Your task to perform on an android device: Add "usb-c" to the cart on target Image 0: 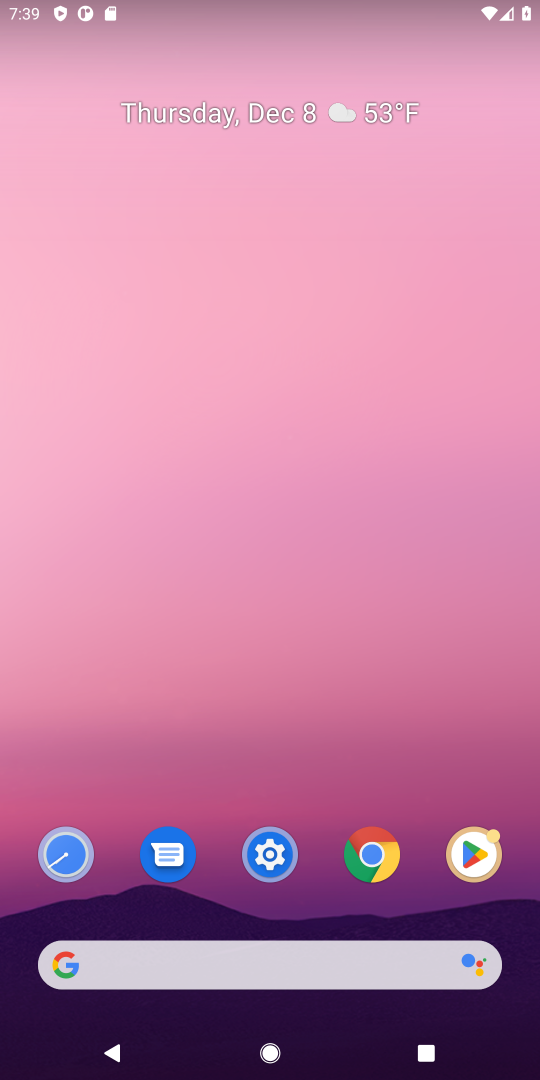
Step 0: click (115, 963)
Your task to perform on an android device: Add "usb-c" to the cart on target Image 1: 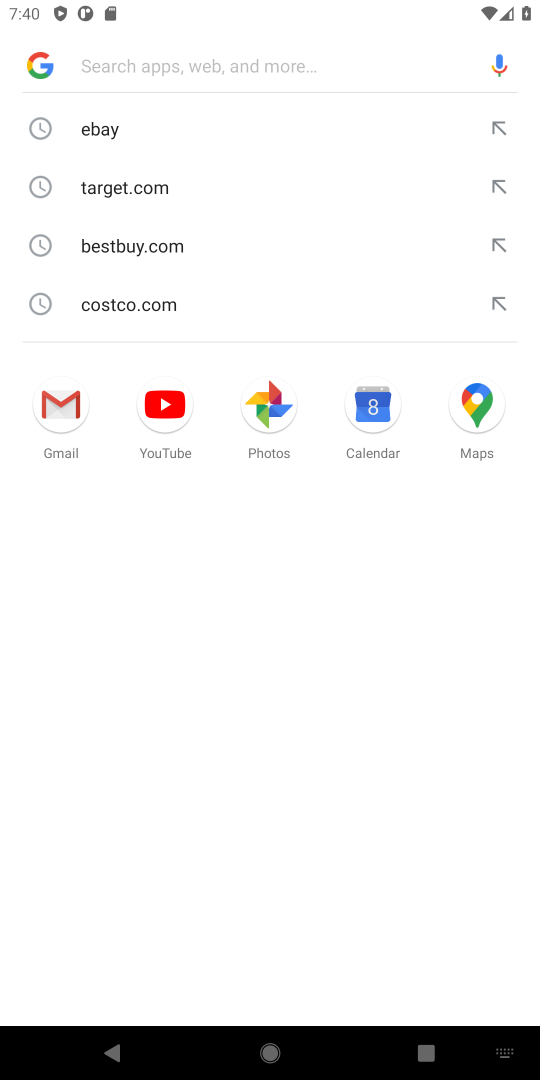
Step 1: type "target"
Your task to perform on an android device: Add "usb-c" to the cart on target Image 2: 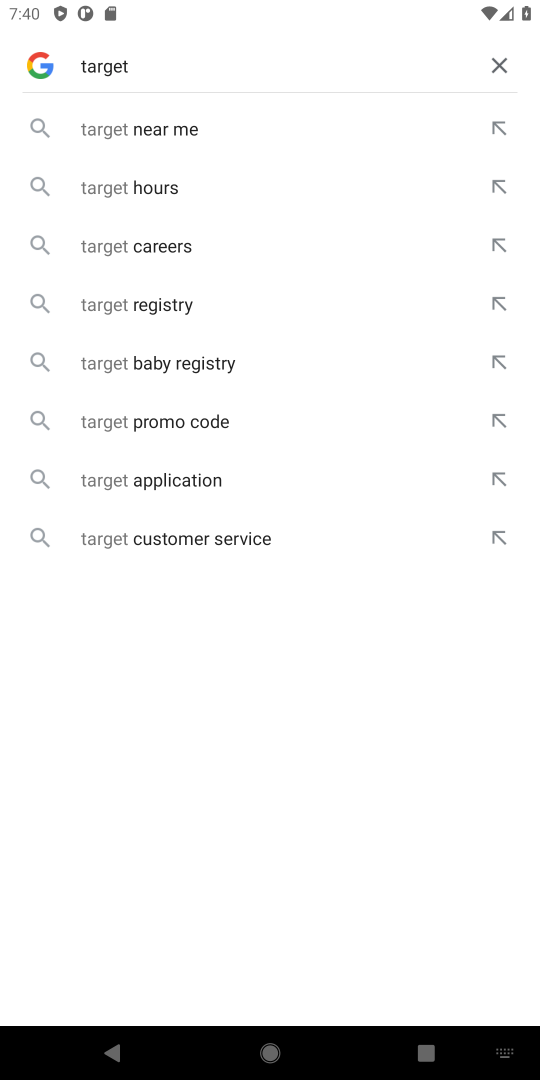
Step 2: press enter
Your task to perform on an android device: Add "usb-c" to the cart on target Image 3: 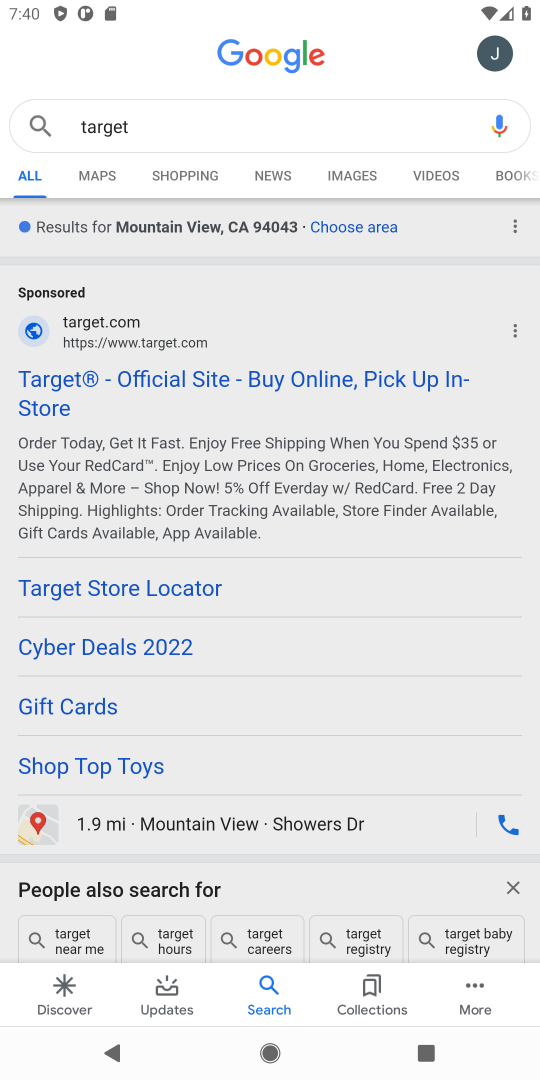
Step 3: click (168, 382)
Your task to perform on an android device: Add "usb-c" to the cart on target Image 4: 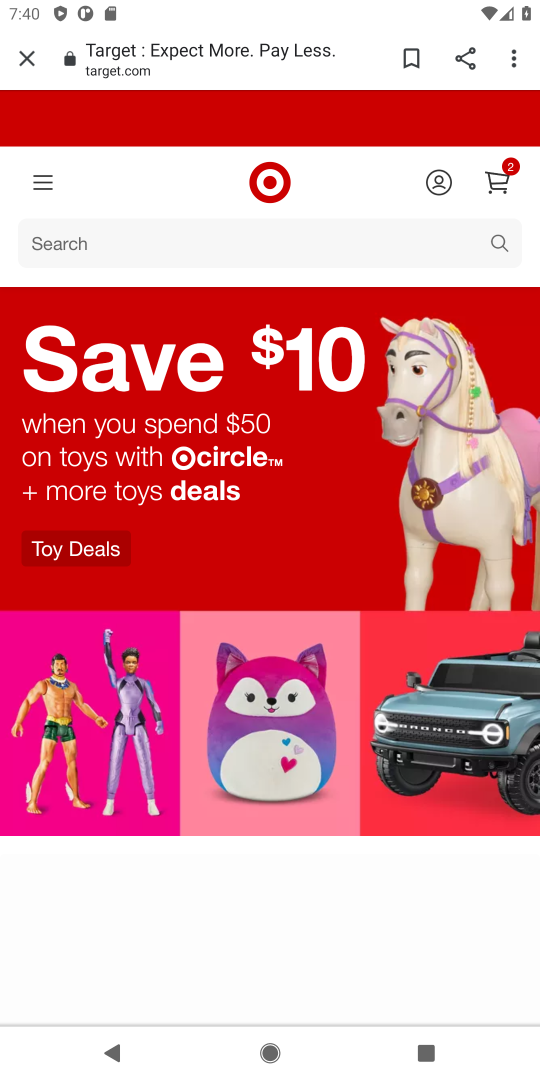
Step 4: click (45, 241)
Your task to perform on an android device: Add "usb-c" to the cart on target Image 5: 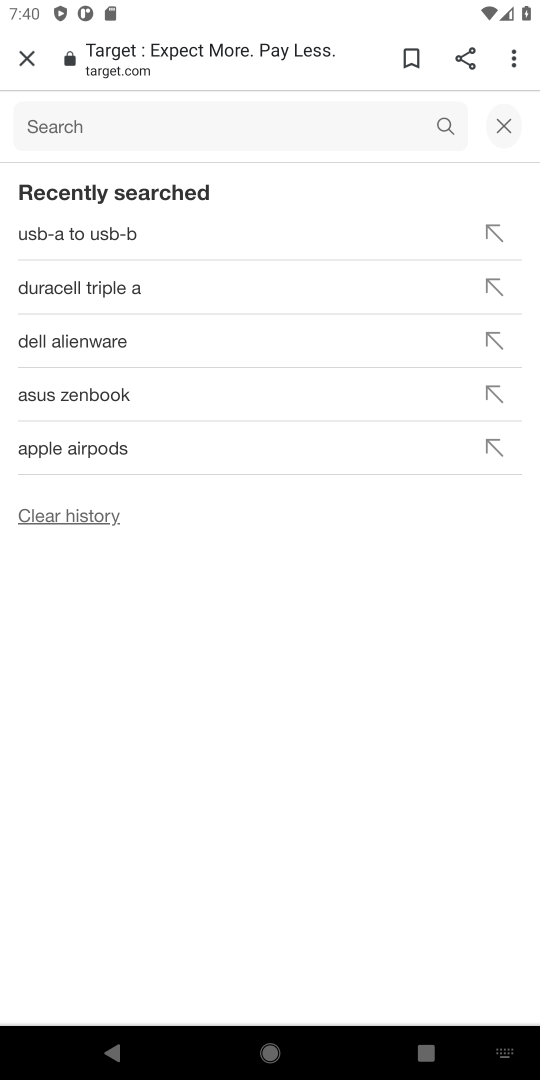
Step 5: type "usb-c"
Your task to perform on an android device: Add "usb-c" to the cart on target Image 6: 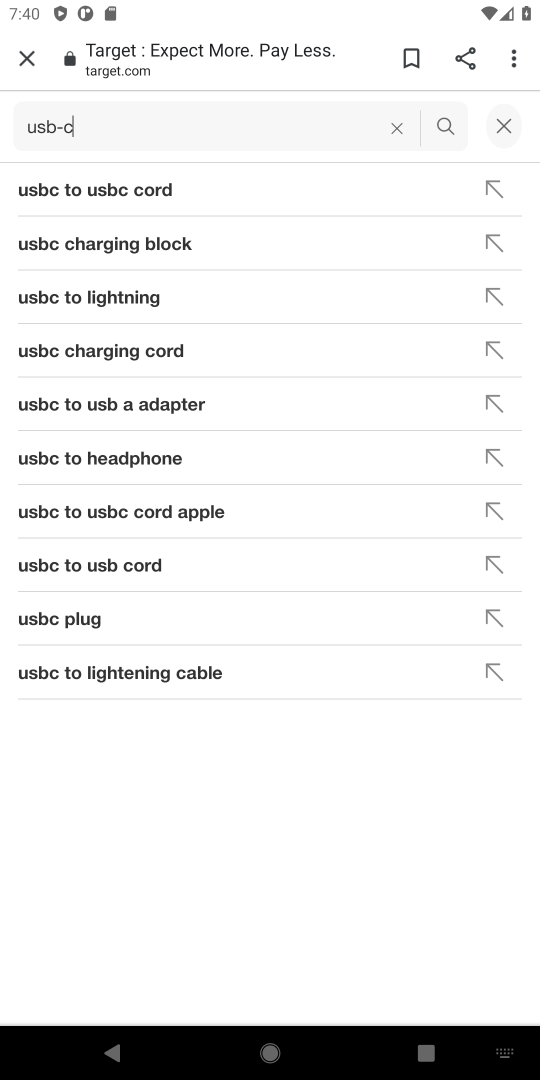
Step 6: press enter
Your task to perform on an android device: Add "usb-c" to the cart on target Image 7: 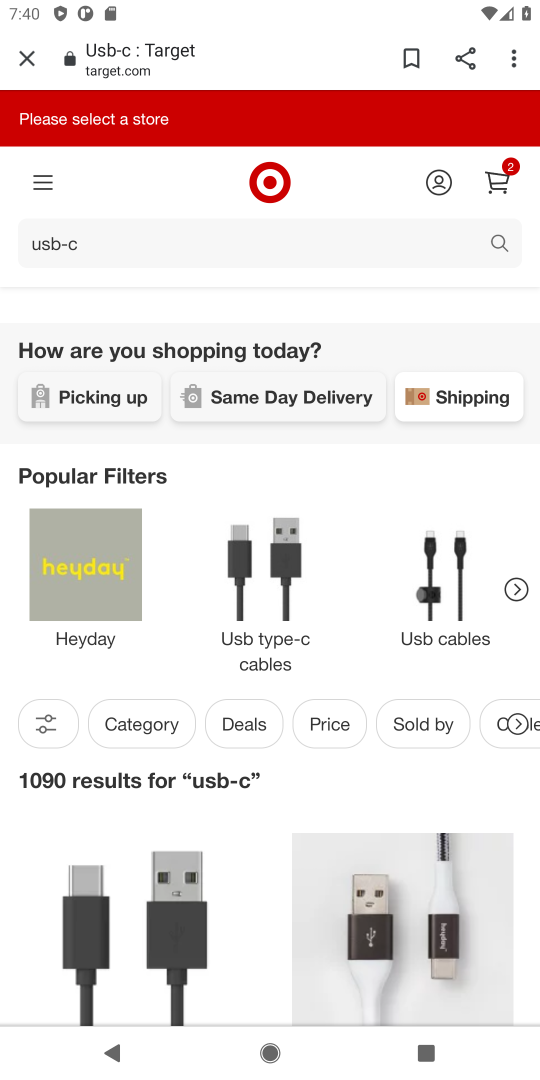
Step 7: drag from (318, 900) to (359, 335)
Your task to perform on an android device: Add "usb-c" to the cart on target Image 8: 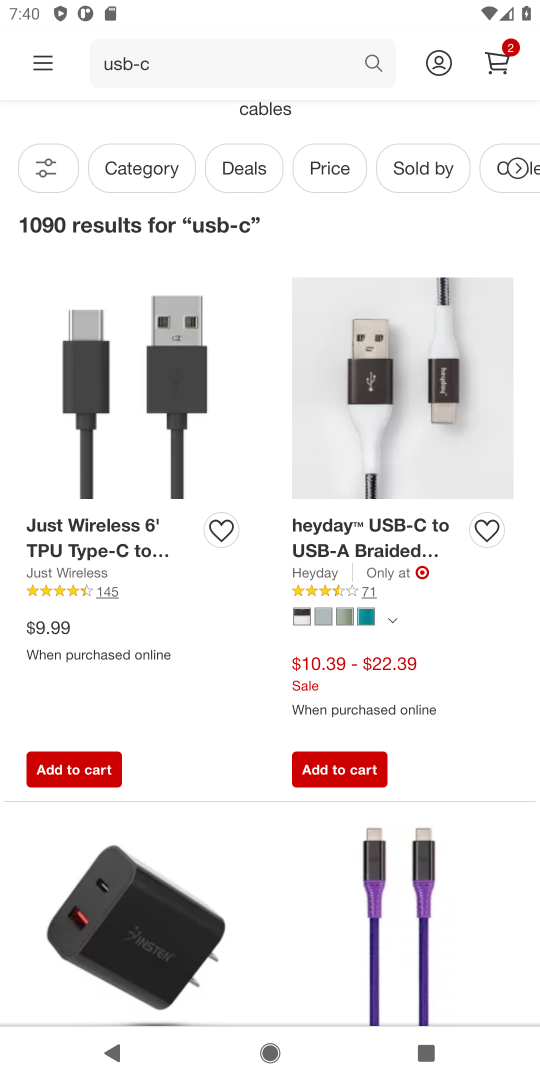
Step 8: click (68, 769)
Your task to perform on an android device: Add "usb-c" to the cart on target Image 9: 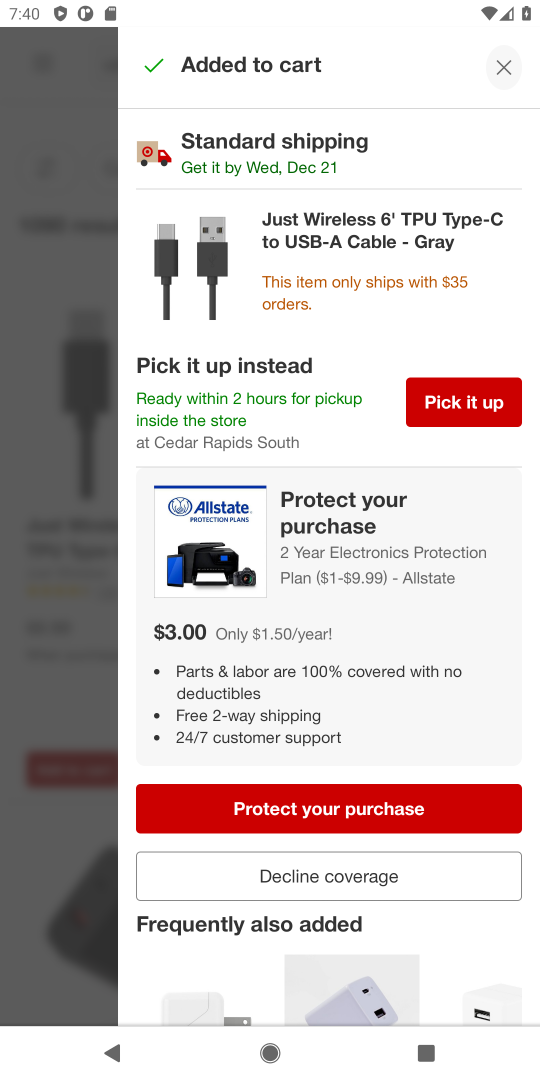
Step 9: task complete